Your task to perform on an android device: Open Chrome and go to settings Image 0: 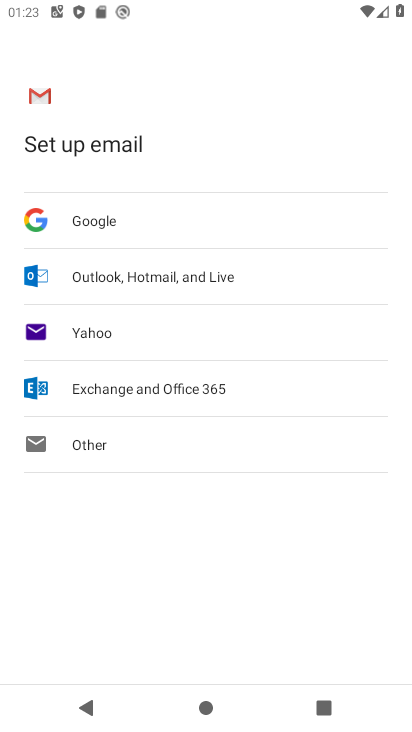
Step 0: press home button
Your task to perform on an android device: Open Chrome and go to settings Image 1: 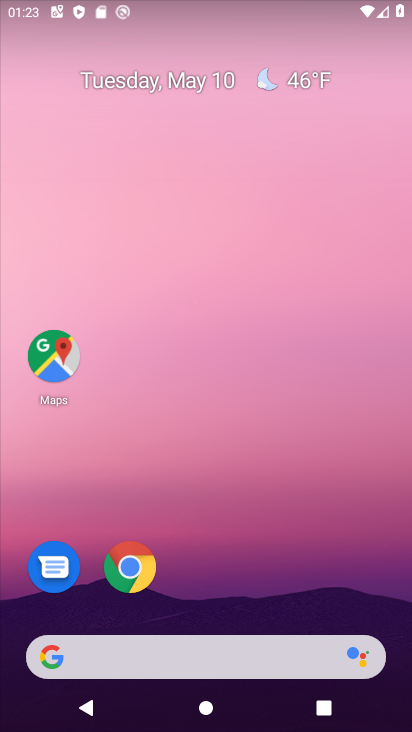
Step 1: click (141, 532)
Your task to perform on an android device: Open Chrome and go to settings Image 2: 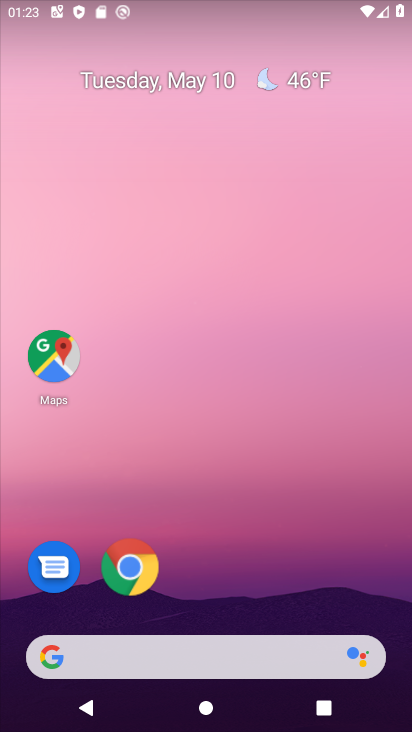
Step 2: click (145, 572)
Your task to perform on an android device: Open Chrome and go to settings Image 3: 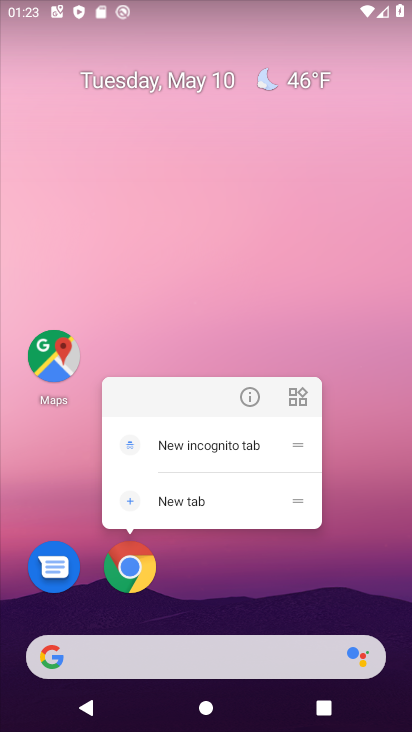
Step 3: click (145, 592)
Your task to perform on an android device: Open Chrome and go to settings Image 4: 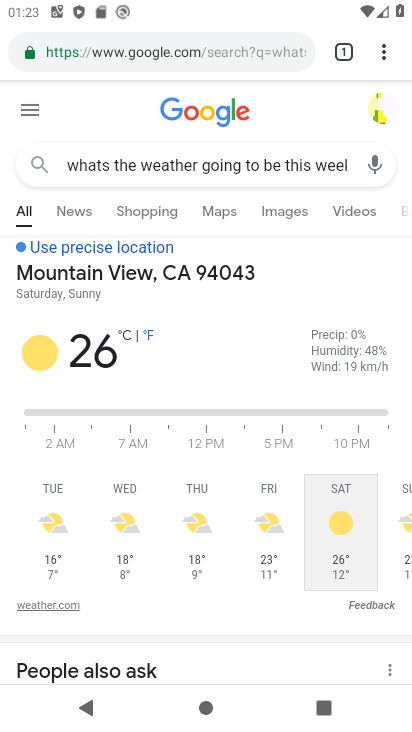
Step 4: click (378, 54)
Your task to perform on an android device: Open Chrome and go to settings Image 5: 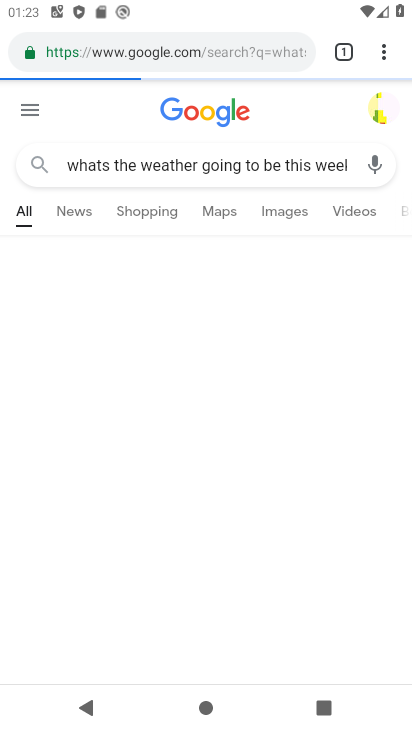
Step 5: task complete